Your task to perform on an android device: Turn on the flashlight Image 0: 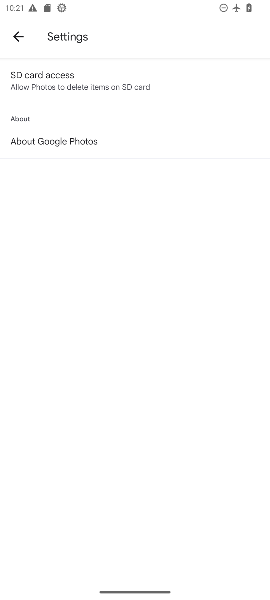
Step 0: press home button
Your task to perform on an android device: Turn on the flashlight Image 1: 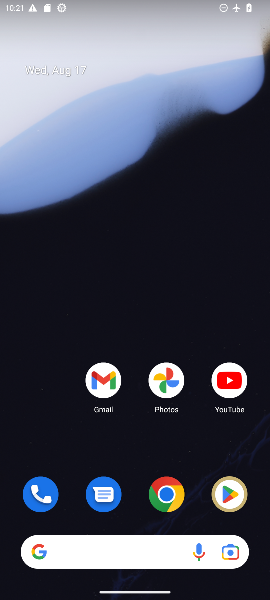
Step 1: drag from (121, 3) to (147, 548)
Your task to perform on an android device: Turn on the flashlight Image 2: 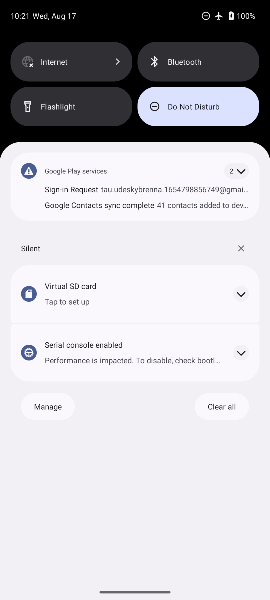
Step 2: click (63, 105)
Your task to perform on an android device: Turn on the flashlight Image 3: 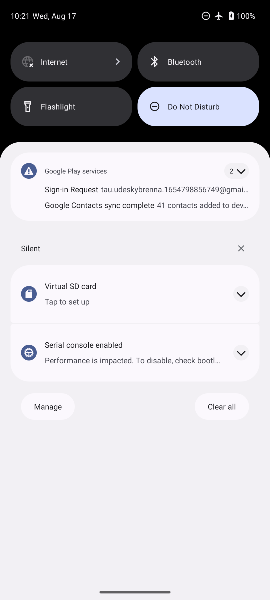
Step 3: task complete